Your task to perform on an android device: check battery use Image 0: 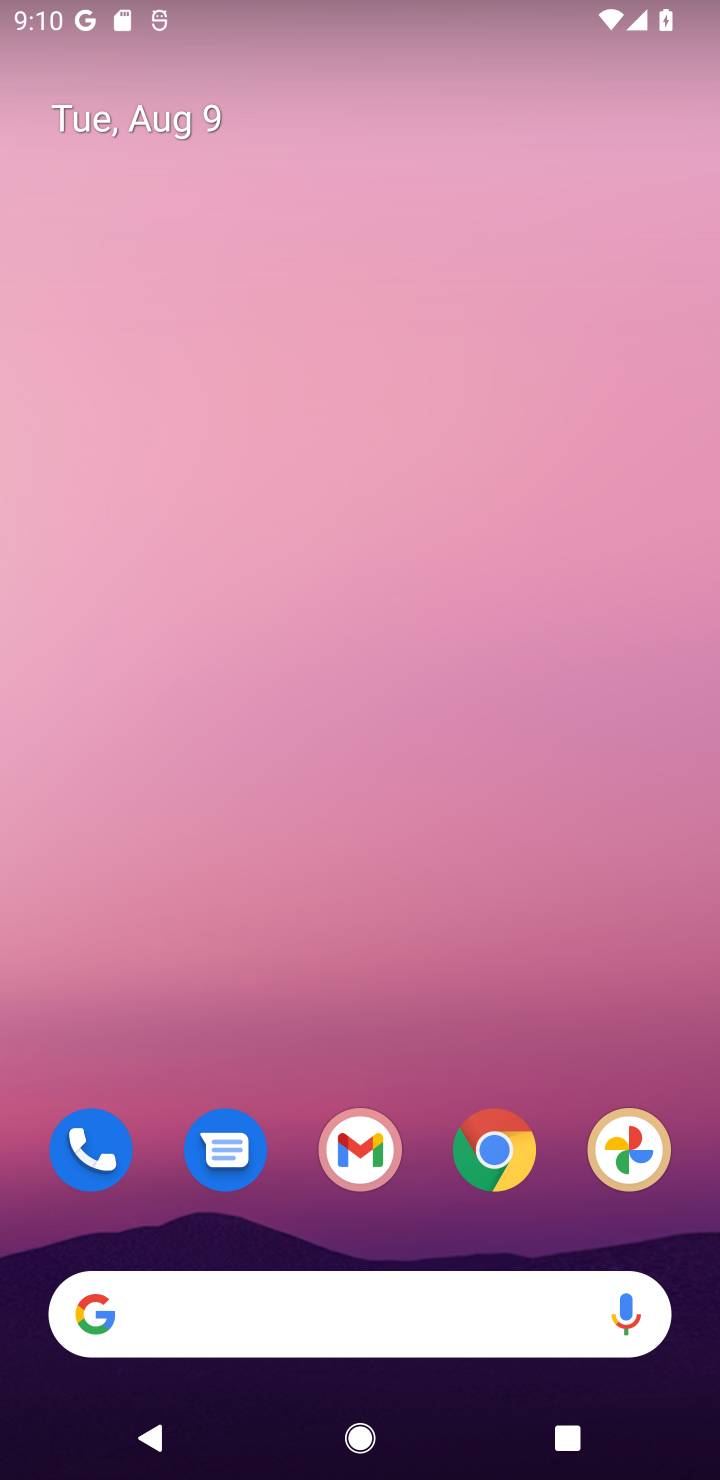
Step 0: drag from (390, 1204) to (460, 456)
Your task to perform on an android device: check battery use Image 1: 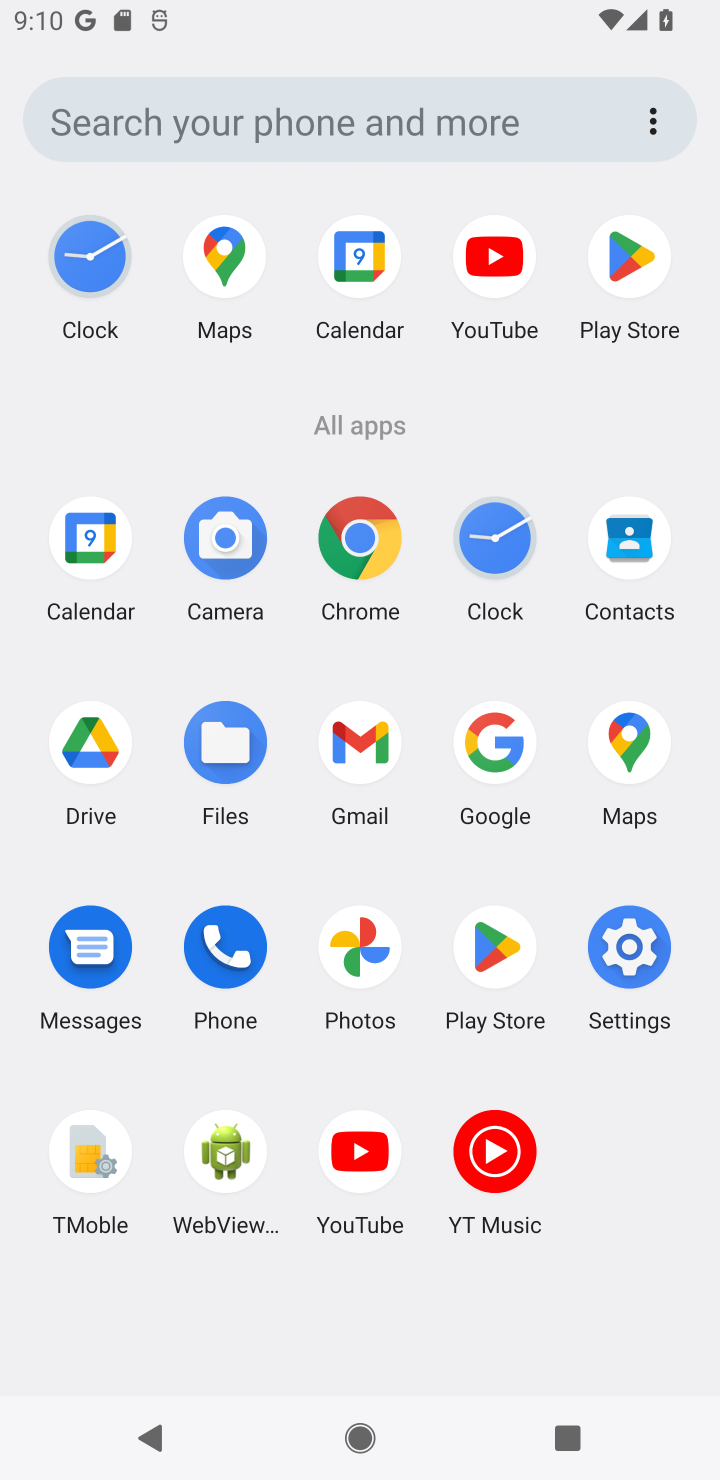
Step 1: click (591, 957)
Your task to perform on an android device: check battery use Image 2: 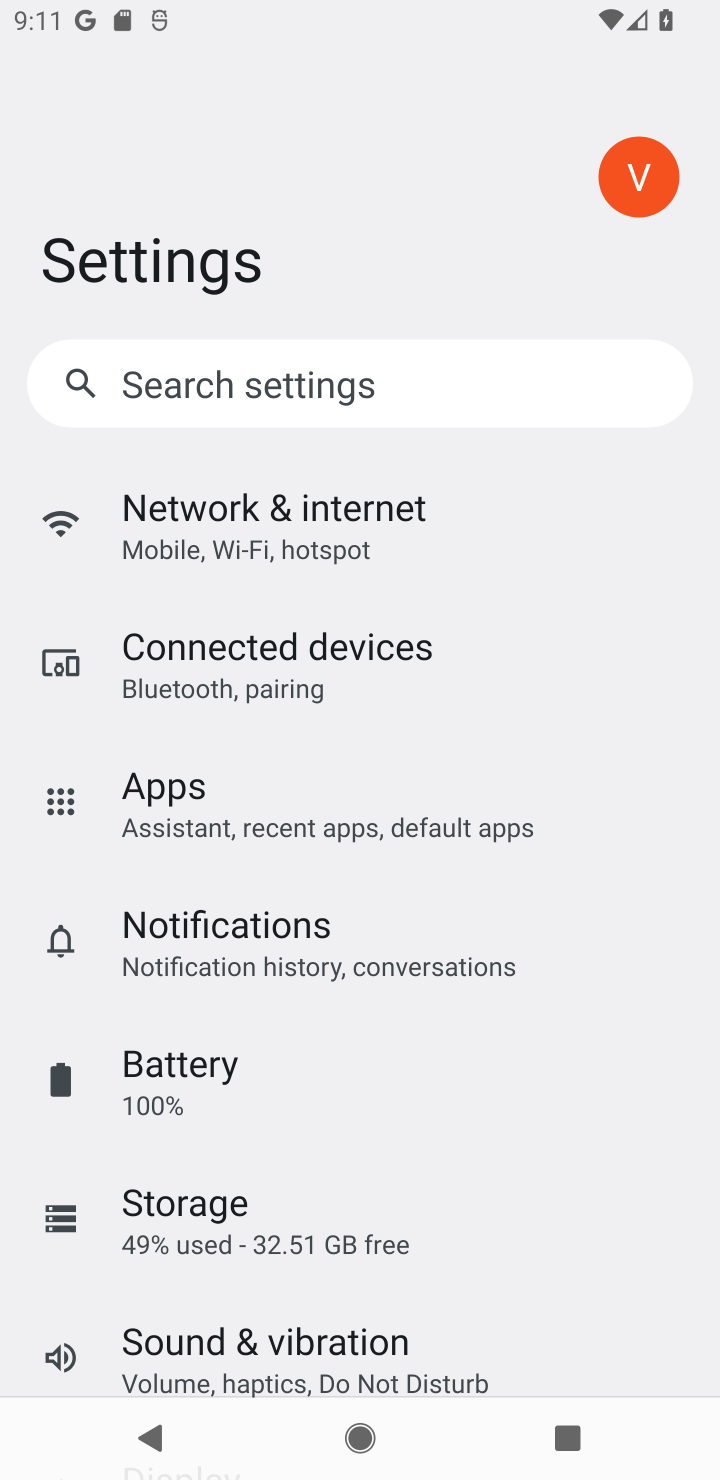
Step 2: click (127, 1045)
Your task to perform on an android device: check battery use Image 3: 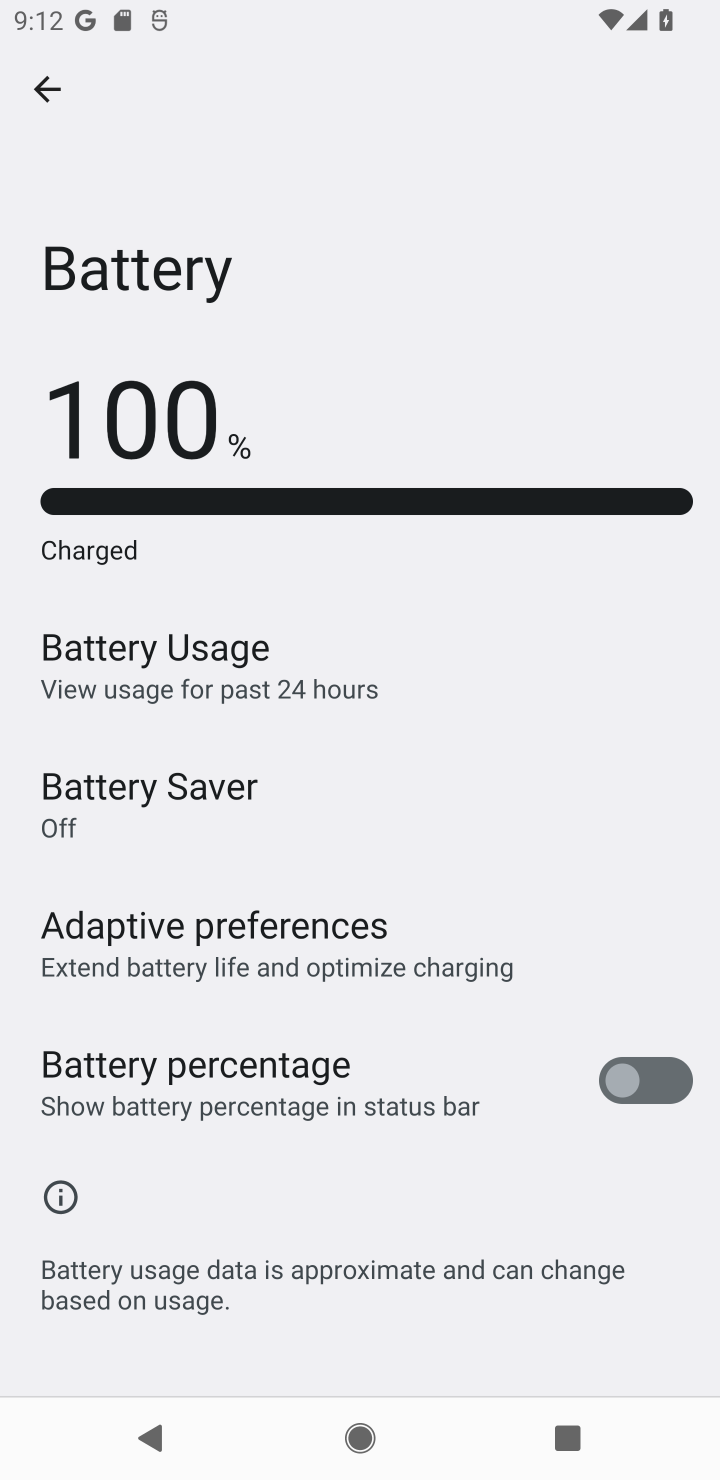
Step 3: task complete